Your task to perform on an android device: set an alarm Image 0: 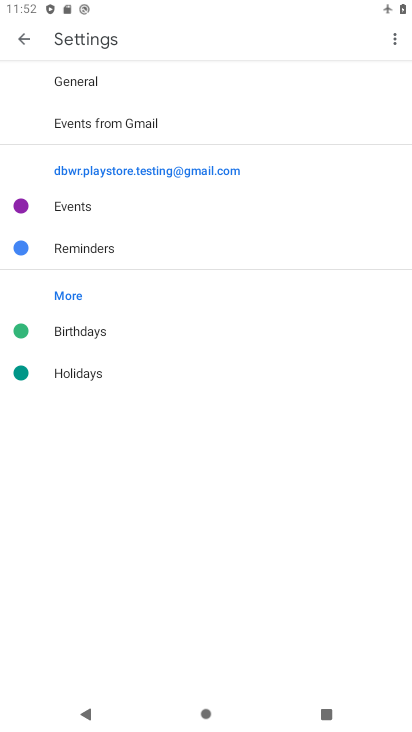
Step 0: drag from (243, 651) to (222, 490)
Your task to perform on an android device: set an alarm Image 1: 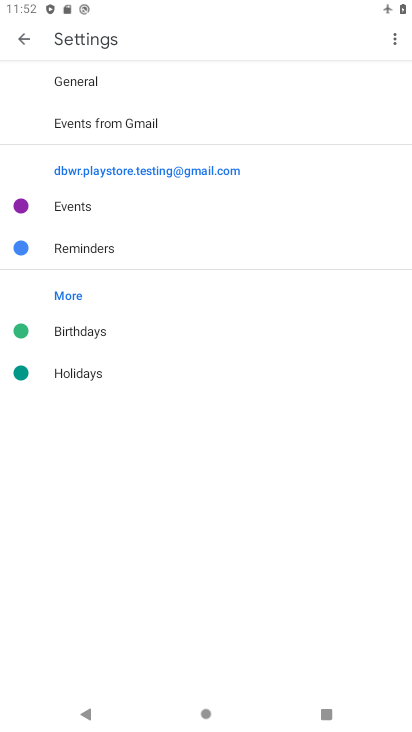
Step 1: press home button
Your task to perform on an android device: set an alarm Image 2: 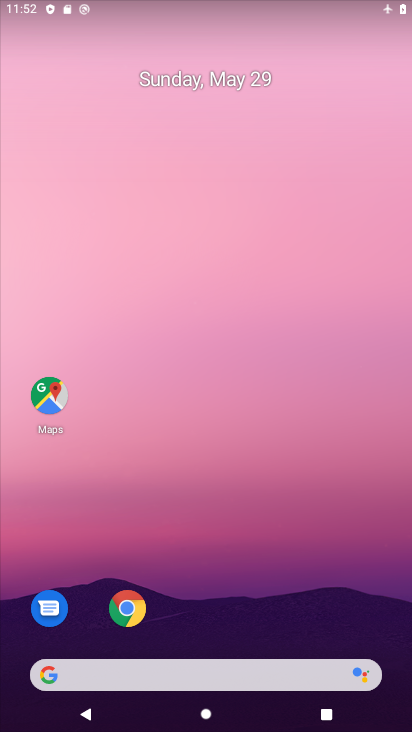
Step 2: drag from (223, 678) to (230, 1)
Your task to perform on an android device: set an alarm Image 3: 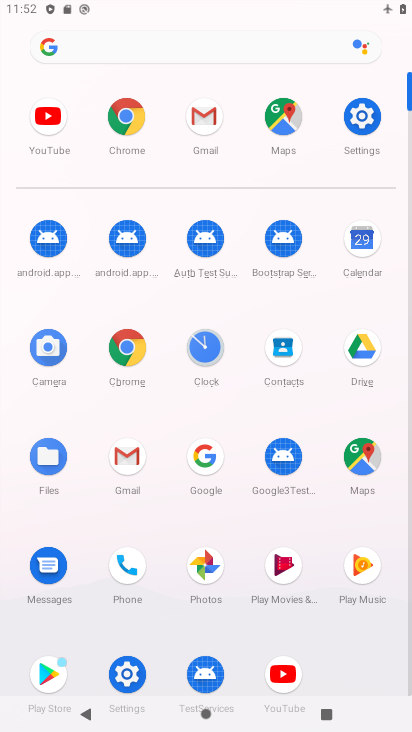
Step 3: click (194, 350)
Your task to perform on an android device: set an alarm Image 4: 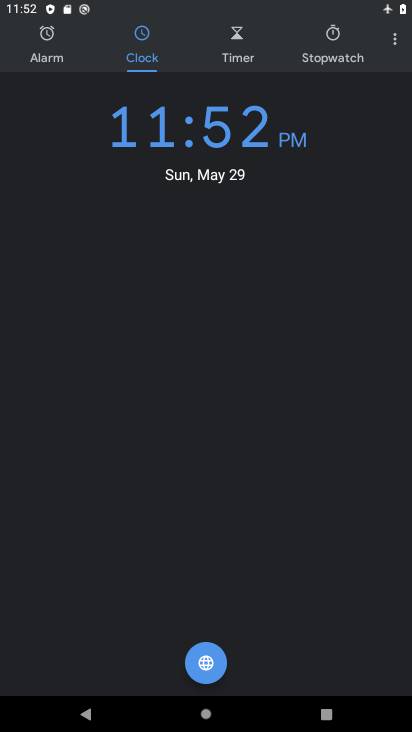
Step 4: click (51, 33)
Your task to perform on an android device: set an alarm Image 5: 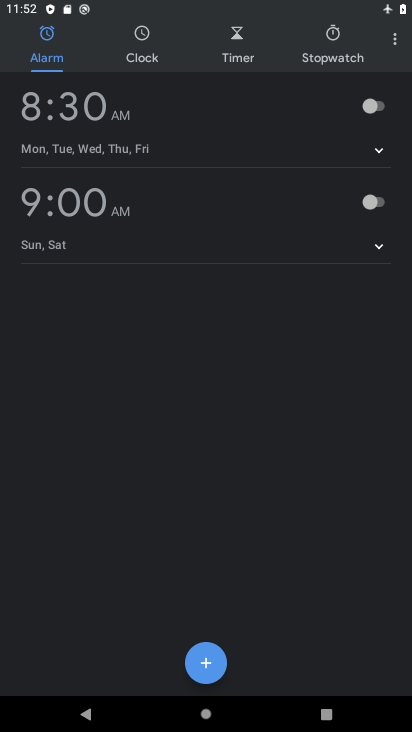
Step 5: click (219, 656)
Your task to perform on an android device: set an alarm Image 6: 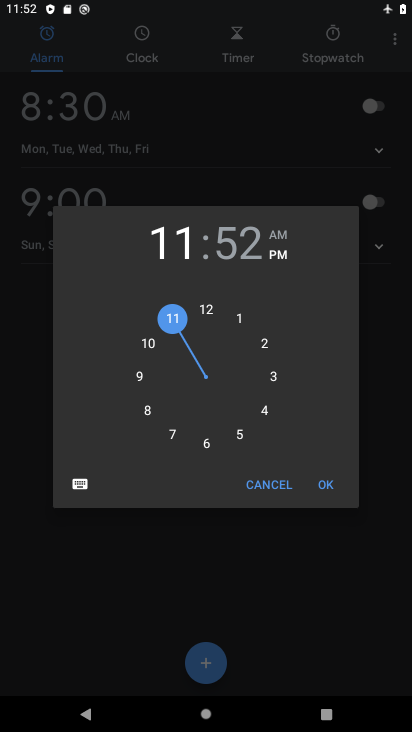
Step 6: click (314, 472)
Your task to perform on an android device: set an alarm Image 7: 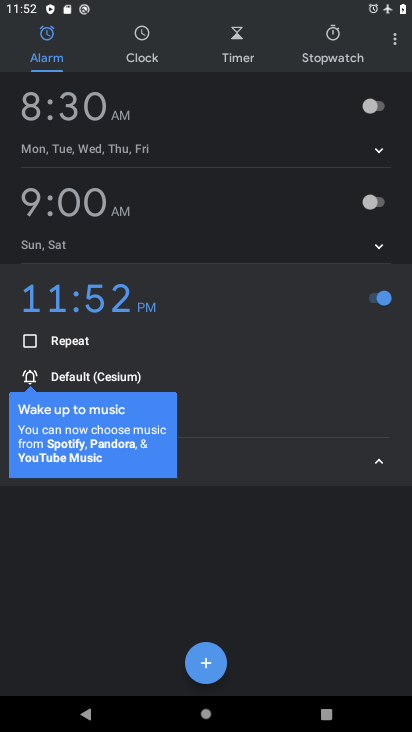
Step 7: click (222, 657)
Your task to perform on an android device: set an alarm Image 8: 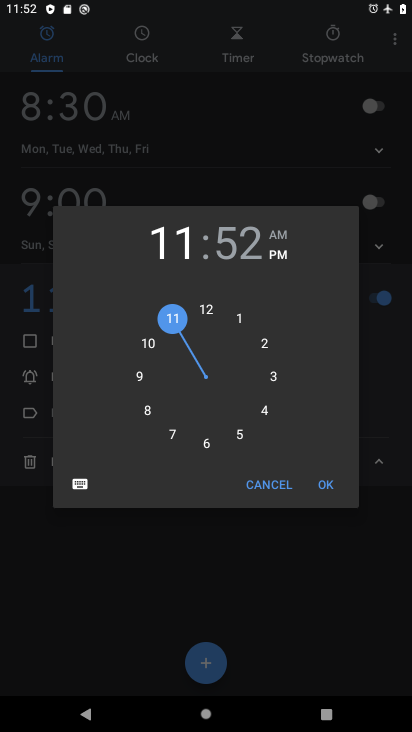
Step 8: task complete